Your task to perform on an android device: What is the recent news? Image 0: 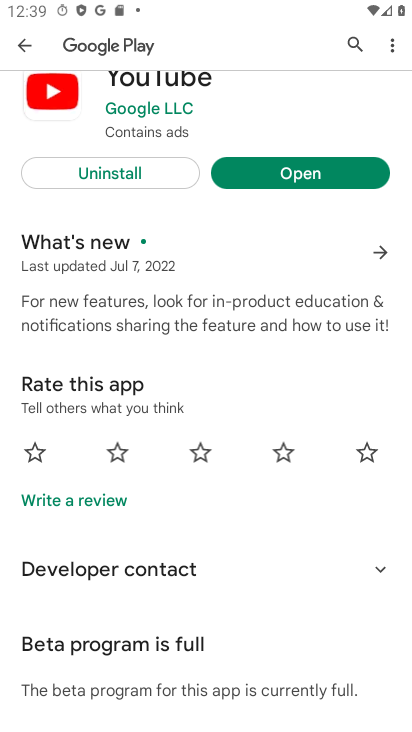
Step 0: press home button
Your task to perform on an android device: What is the recent news? Image 1: 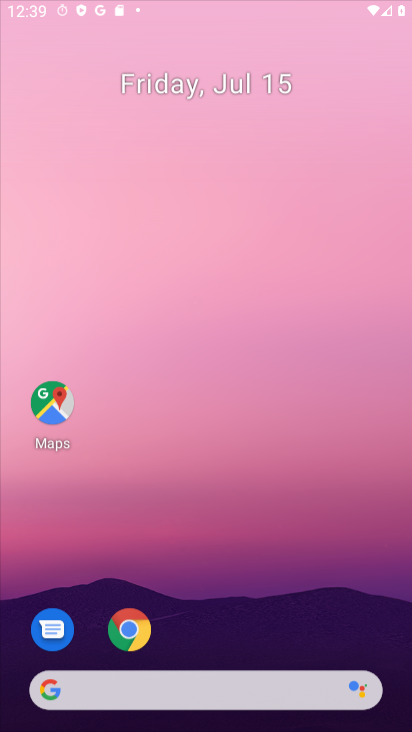
Step 1: drag from (256, 605) to (287, 46)
Your task to perform on an android device: What is the recent news? Image 2: 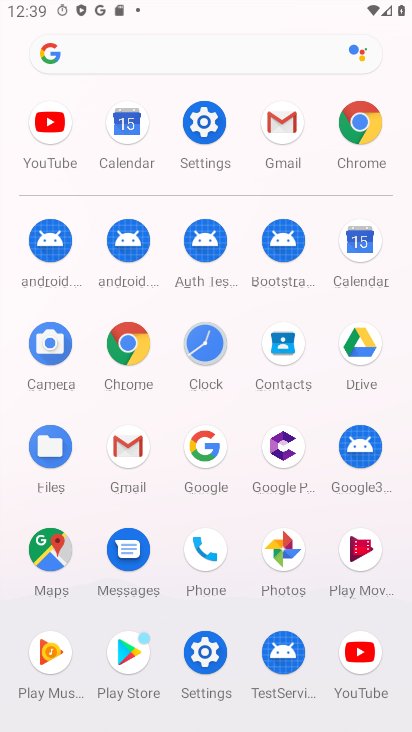
Step 2: click (130, 51)
Your task to perform on an android device: What is the recent news? Image 3: 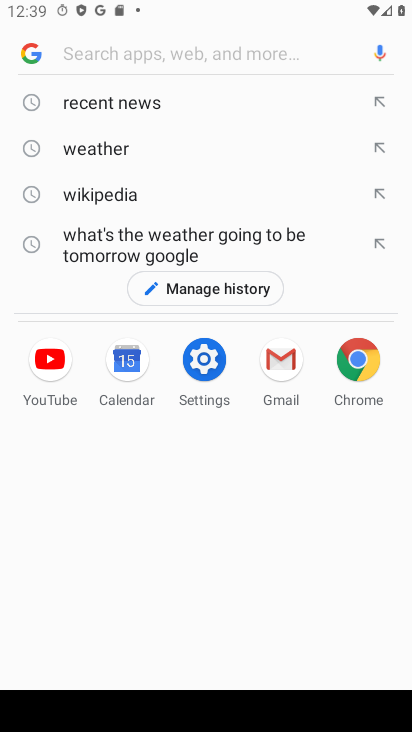
Step 3: type "recent news?"
Your task to perform on an android device: What is the recent news? Image 4: 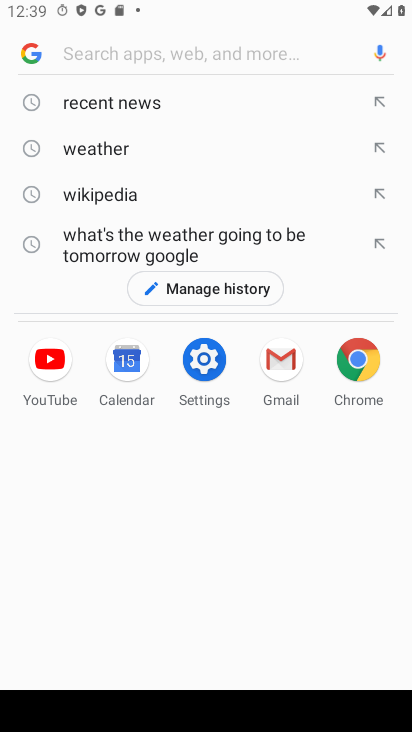
Step 4: click (172, 112)
Your task to perform on an android device: What is the recent news? Image 5: 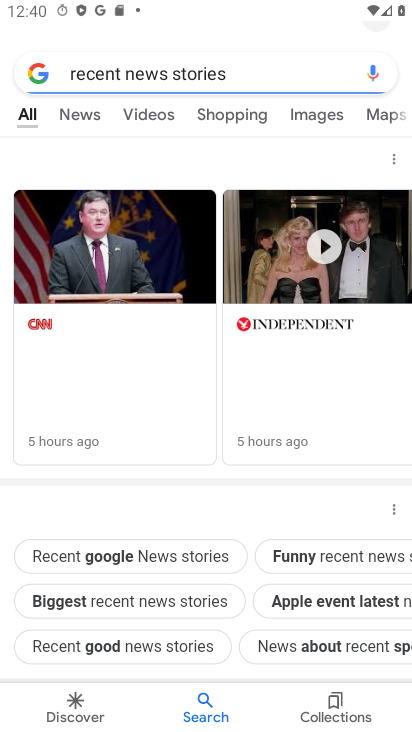
Step 5: task complete